Your task to perform on an android device: open a bookmark in the chrome app Image 0: 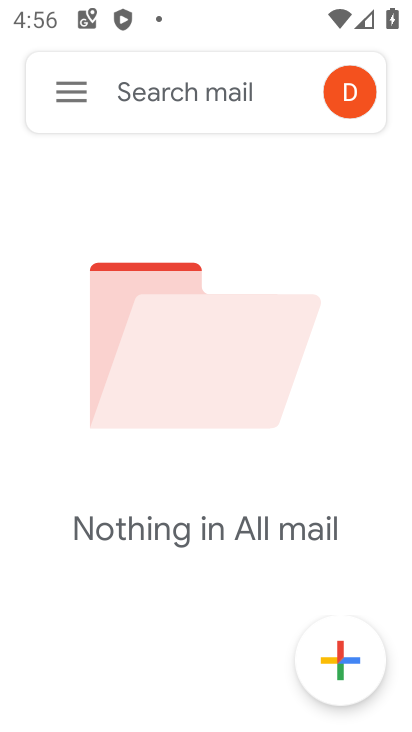
Step 0: press back button
Your task to perform on an android device: open a bookmark in the chrome app Image 1: 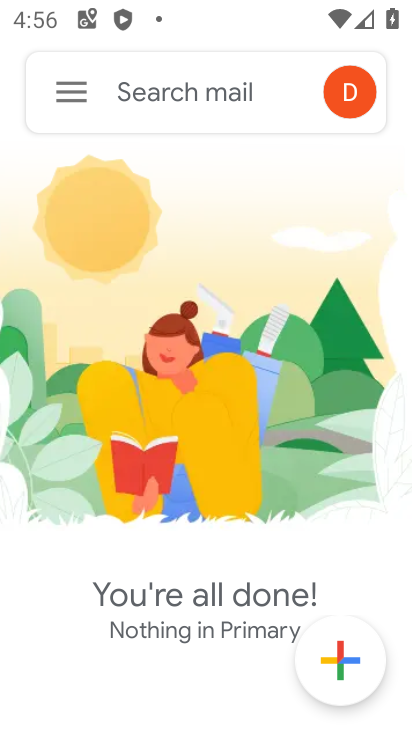
Step 1: press home button
Your task to perform on an android device: open a bookmark in the chrome app Image 2: 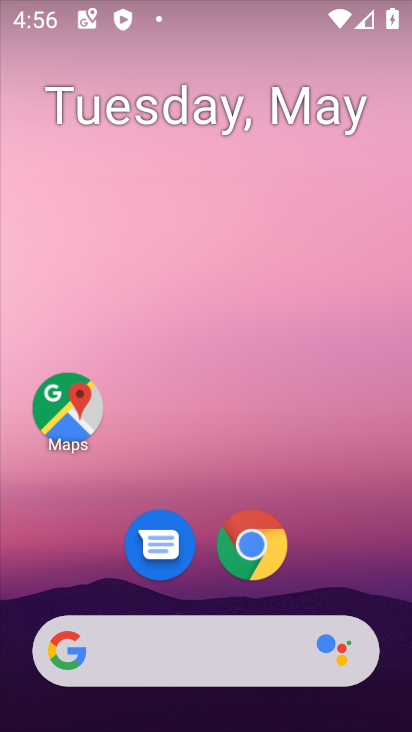
Step 2: drag from (399, 560) to (280, 1)
Your task to perform on an android device: open a bookmark in the chrome app Image 3: 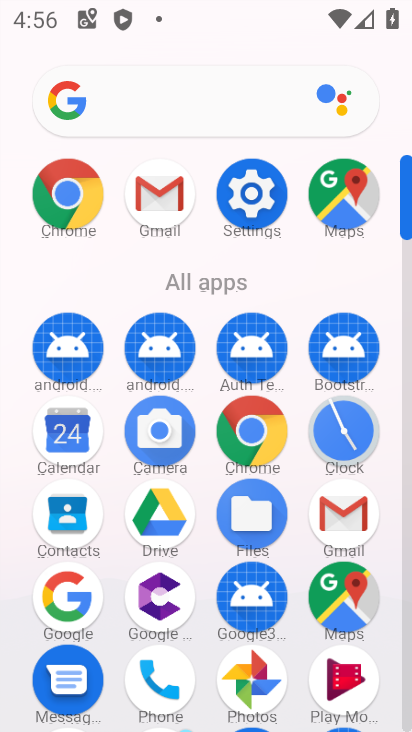
Step 3: click (24, 190)
Your task to perform on an android device: open a bookmark in the chrome app Image 4: 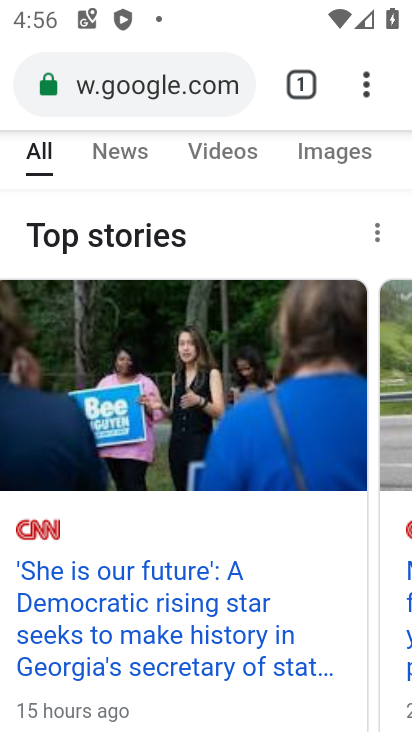
Step 4: task complete